Your task to perform on an android device: Set the phone to "Do not disturb". Image 0: 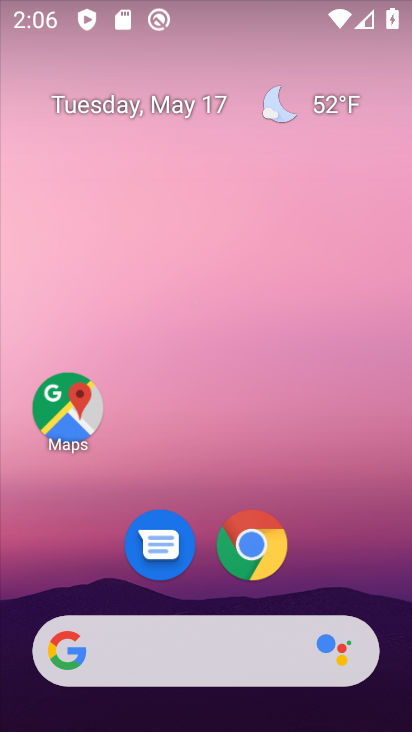
Step 0: drag from (348, 557) to (362, 151)
Your task to perform on an android device: Set the phone to "Do not disturb". Image 1: 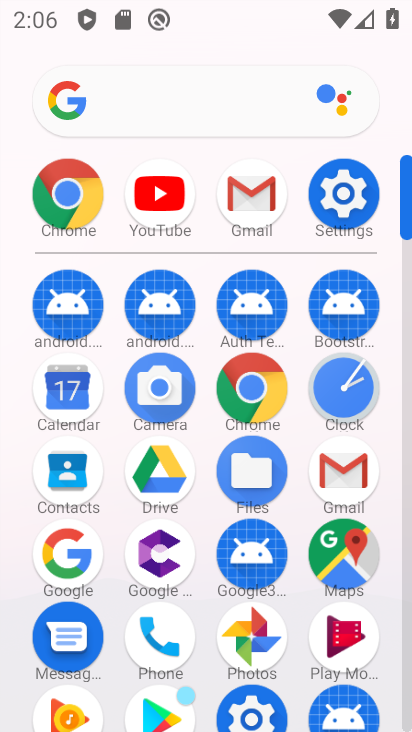
Step 1: drag from (204, 604) to (204, 411)
Your task to perform on an android device: Set the phone to "Do not disturb". Image 2: 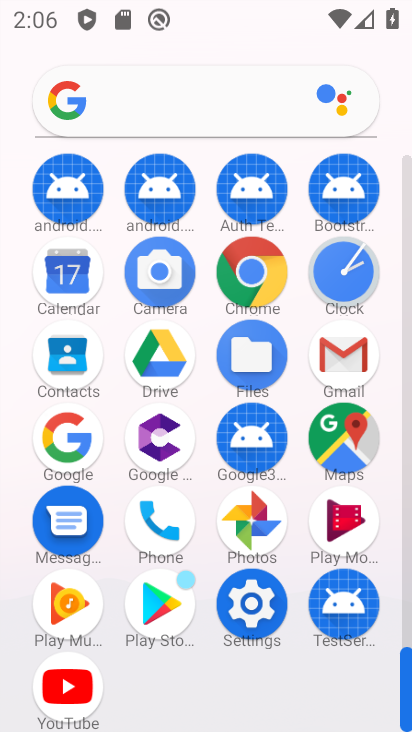
Step 2: drag from (201, 687) to (207, 483)
Your task to perform on an android device: Set the phone to "Do not disturb". Image 3: 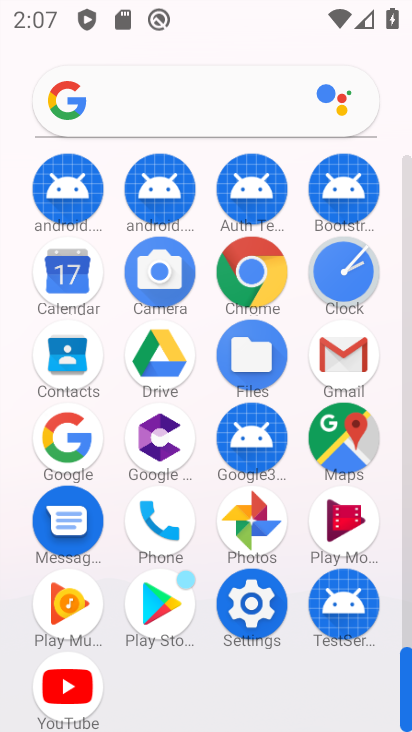
Step 3: click (254, 598)
Your task to perform on an android device: Set the phone to "Do not disturb". Image 4: 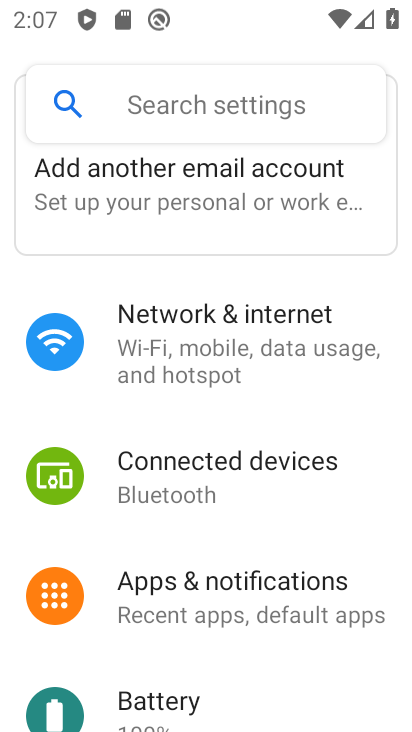
Step 4: drag from (349, 513) to (359, 383)
Your task to perform on an android device: Set the phone to "Do not disturb". Image 5: 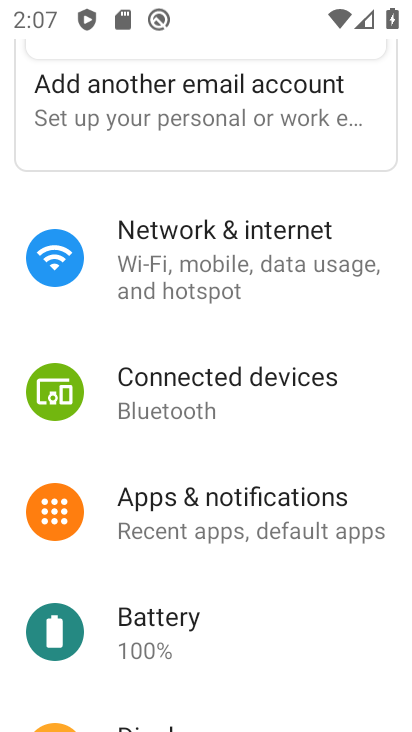
Step 5: drag from (357, 648) to (364, 506)
Your task to perform on an android device: Set the phone to "Do not disturb". Image 6: 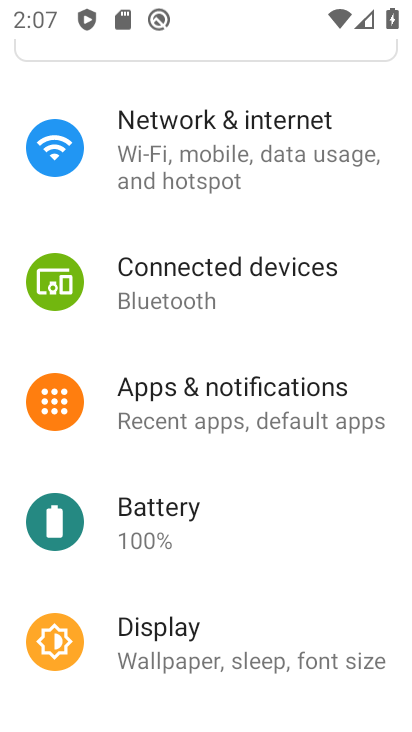
Step 6: drag from (352, 578) to (343, 464)
Your task to perform on an android device: Set the phone to "Do not disturb". Image 7: 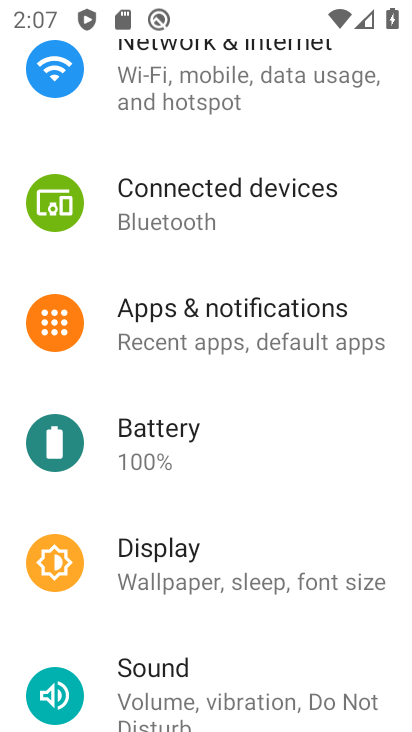
Step 7: drag from (321, 607) to (330, 559)
Your task to perform on an android device: Set the phone to "Do not disturb". Image 8: 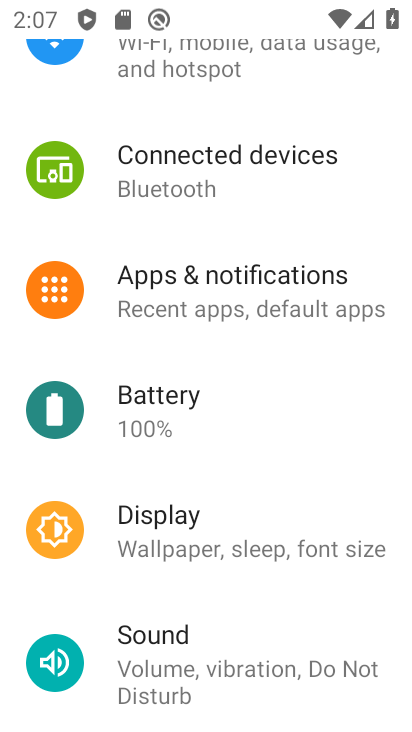
Step 8: click (229, 653)
Your task to perform on an android device: Set the phone to "Do not disturb". Image 9: 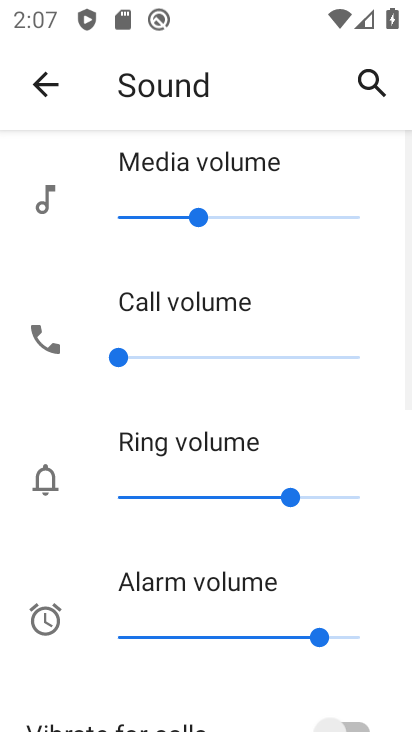
Step 9: drag from (295, 564) to (325, 376)
Your task to perform on an android device: Set the phone to "Do not disturb". Image 10: 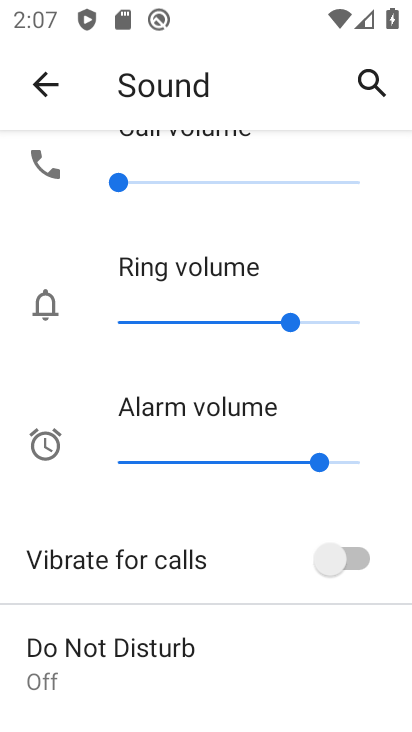
Step 10: drag from (250, 660) to (253, 472)
Your task to perform on an android device: Set the phone to "Do not disturb". Image 11: 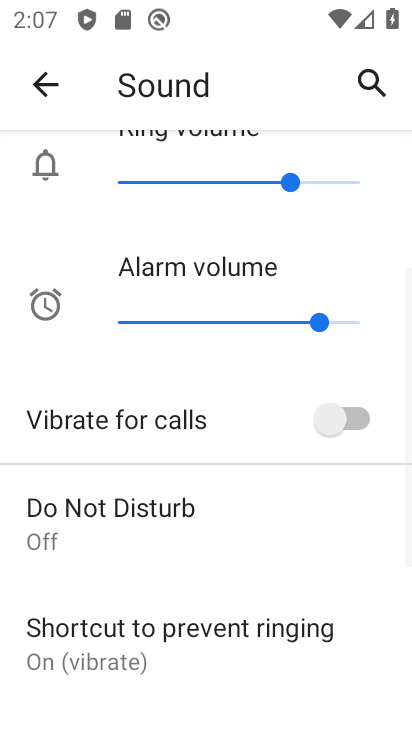
Step 11: click (194, 555)
Your task to perform on an android device: Set the phone to "Do not disturb". Image 12: 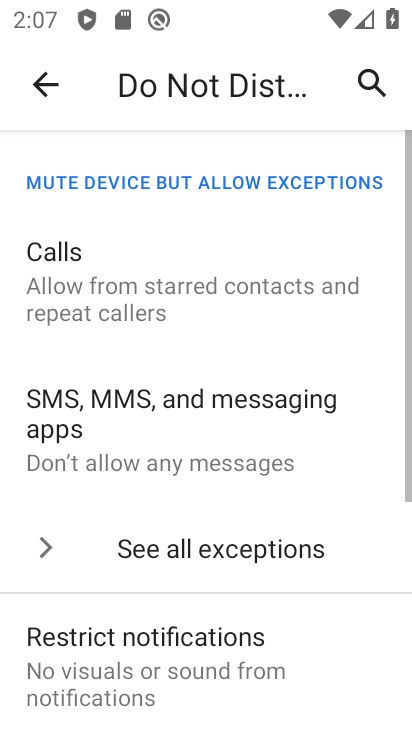
Step 12: drag from (195, 611) to (208, 457)
Your task to perform on an android device: Set the phone to "Do not disturb". Image 13: 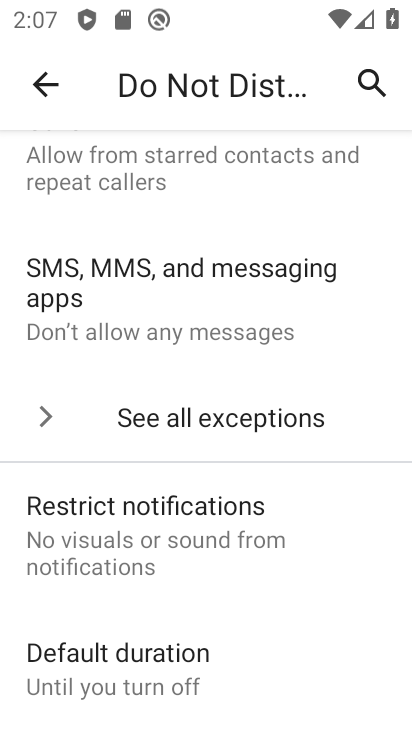
Step 13: drag from (244, 667) to (250, 575)
Your task to perform on an android device: Set the phone to "Do not disturb". Image 14: 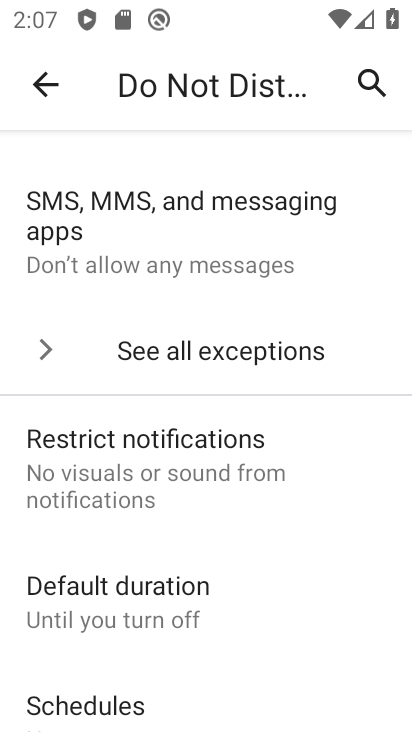
Step 14: drag from (256, 614) to (268, 566)
Your task to perform on an android device: Set the phone to "Do not disturb". Image 15: 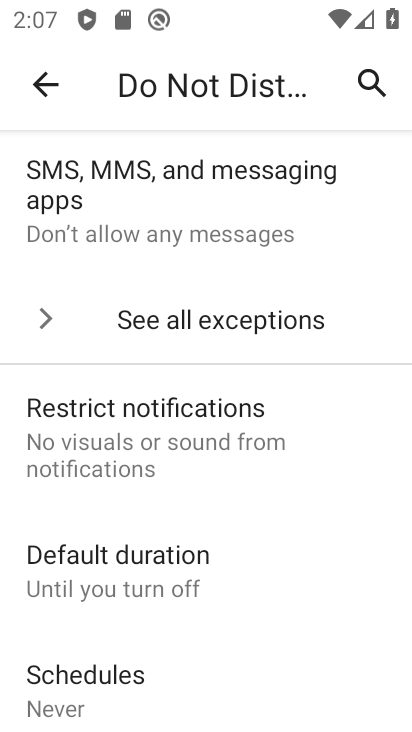
Step 15: drag from (275, 629) to (279, 465)
Your task to perform on an android device: Set the phone to "Do not disturb". Image 16: 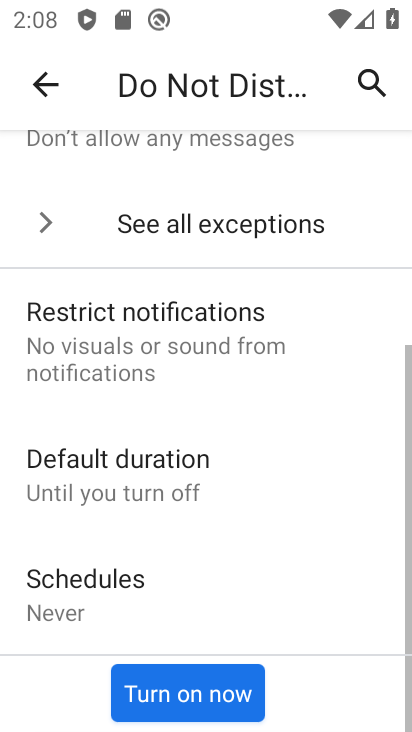
Step 16: click (221, 700)
Your task to perform on an android device: Set the phone to "Do not disturb". Image 17: 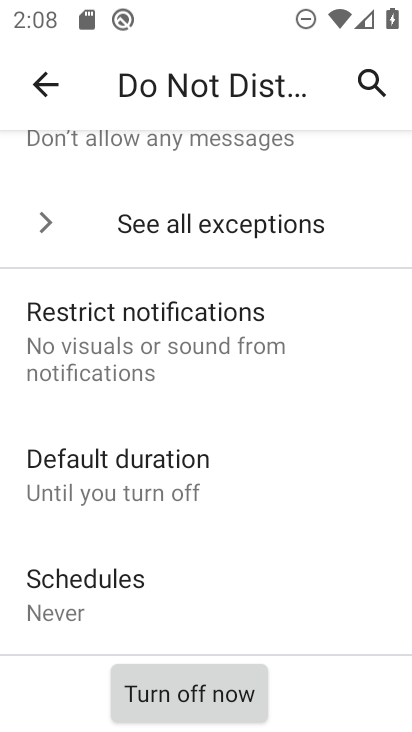
Step 17: task complete